Your task to perform on an android device: Go to Android settings Image 0: 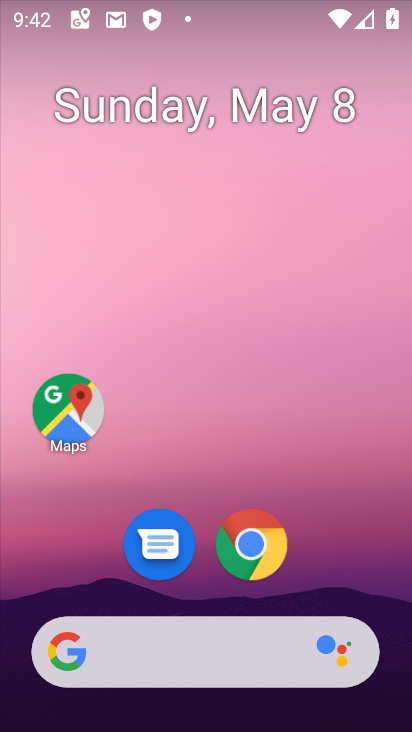
Step 0: drag from (366, 560) to (342, 94)
Your task to perform on an android device: Go to Android settings Image 1: 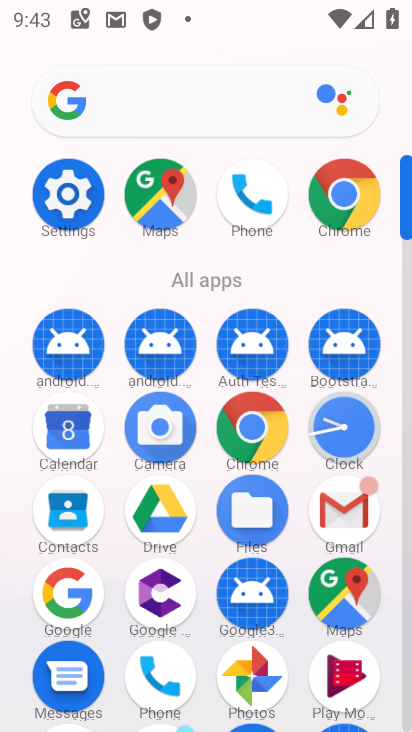
Step 1: click (73, 213)
Your task to perform on an android device: Go to Android settings Image 2: 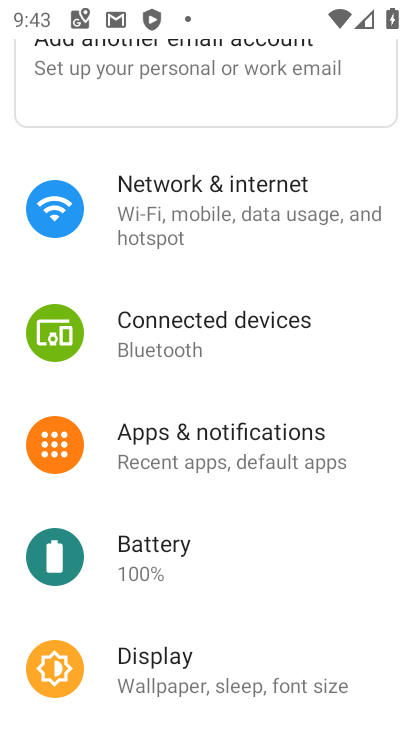
Step 2: drag from (231, 649) to (207, 142)
Your task to perform on an android device: Go to Android settings Image 3: 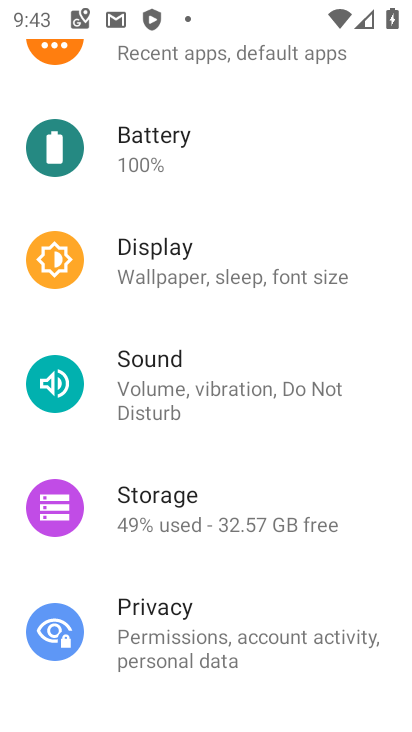
Step 3: drag from (287, 675) to (285, 426)
Your task to perform on an android device: Go to Android settings Image 4: 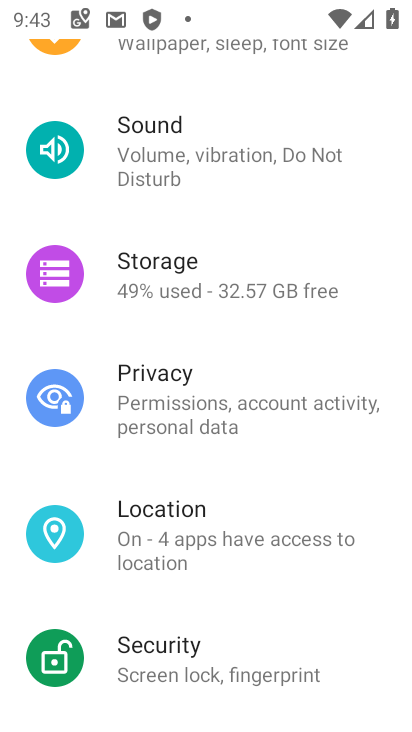
Step 4: drag from (267, 658) to (268, 402)
Your task to perform on an android device: Go to Android settings Image 5: 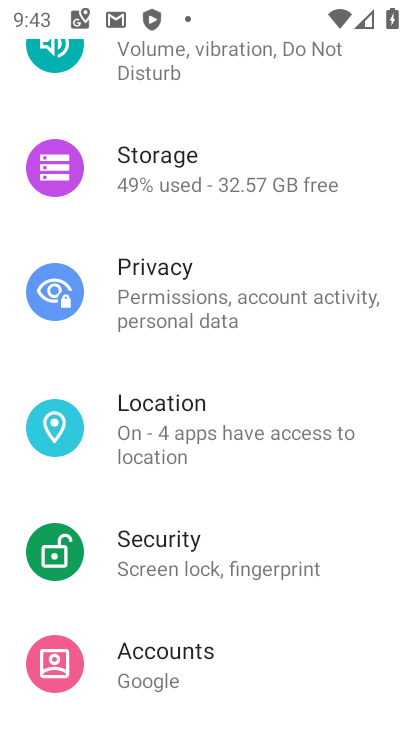
Step 5: drag from (269, 662) to (268, 197)
Your task to perform on an android device: Go to Android settings Image 6: 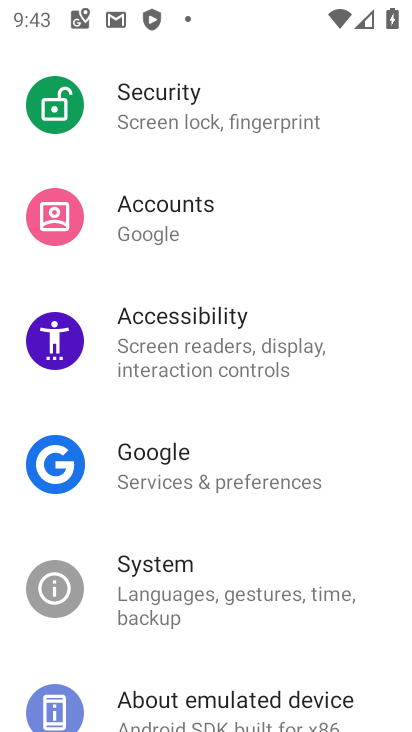
Step 6: click (270, 680)
Your task to perform on an android device: Go to Android settings Image 7: 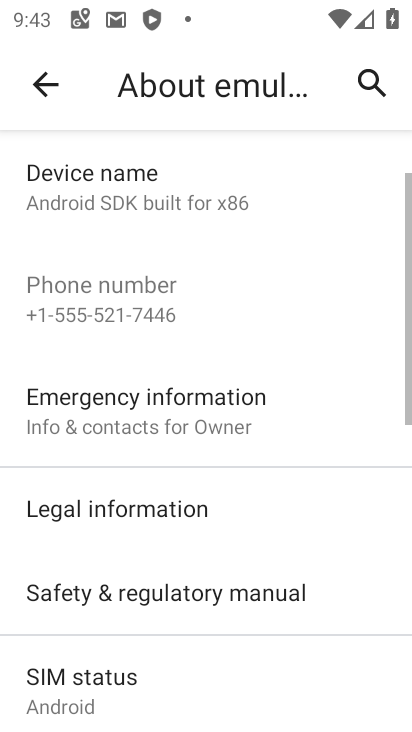
Step 7: task complete